Your task to perform on an android device: toggle priority inbox in the gmail app Image 0: 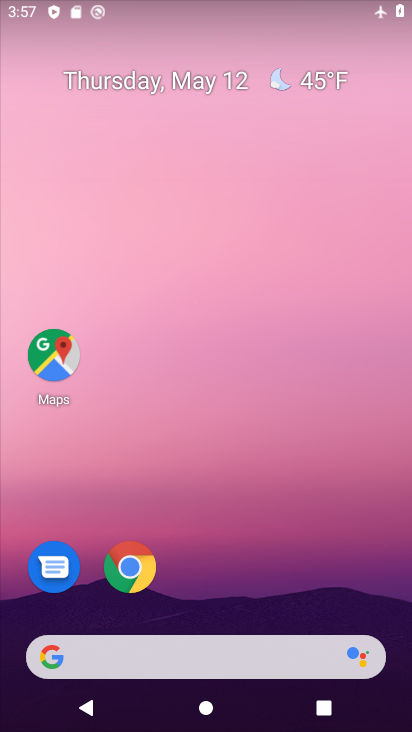
Step 0: drag from (206, 594) to (229, 197)
Your task to perform on an android device: toggle priority inbox in the gmail app Image 1: 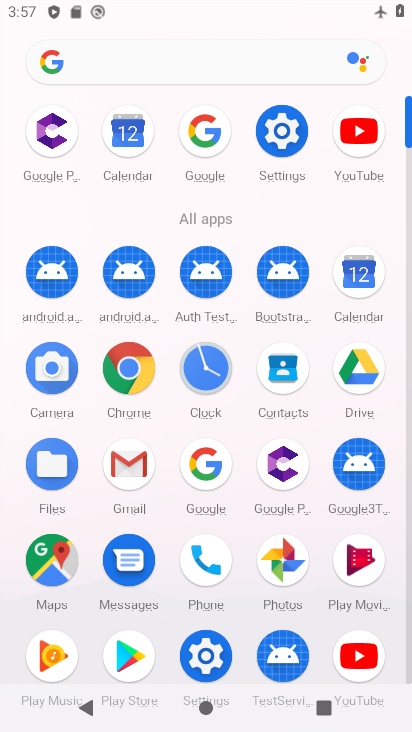
Step 1: click (121, 477)
Your task to perform on an android device: toggle priority inbox in the gmail app Image 2: 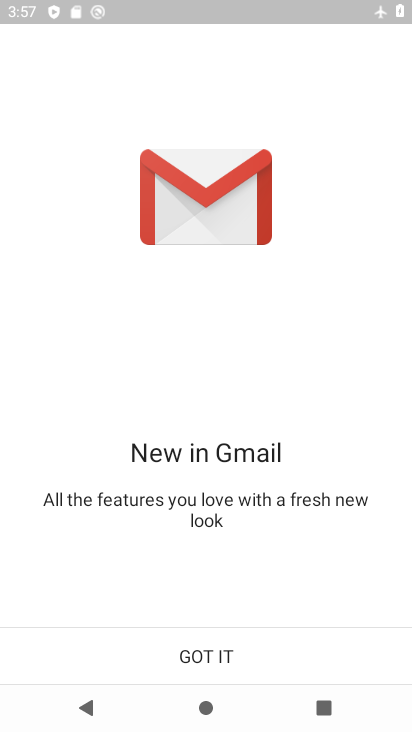
Step 2: click (261, 660)
Your task to perform on an android device: toggle priority inbox in the gmail app Image 3: 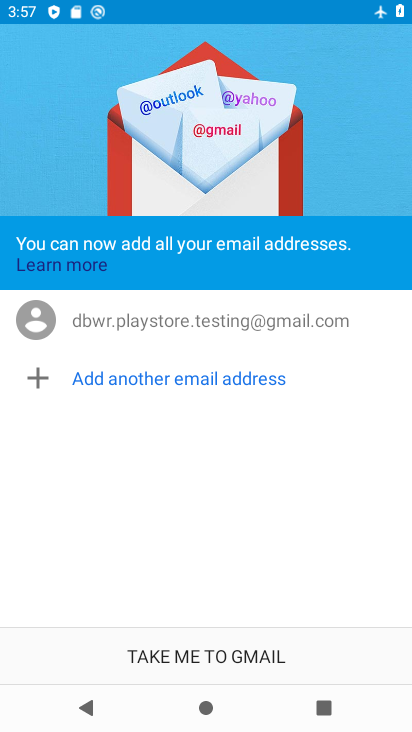
Step 3: click (261, 660)
Your task to perform on an android device: toggle priority inbox in the gmail app Image 4: 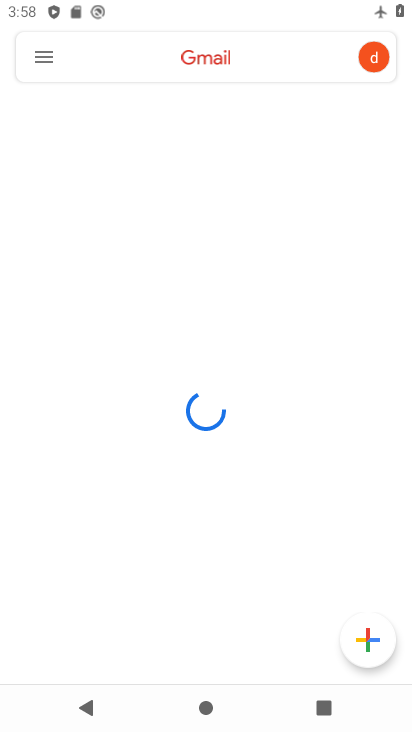
Step 4: click (45, 51)
Your task to perform on an android device: toggle priority inbox in the gmail app Image 5: 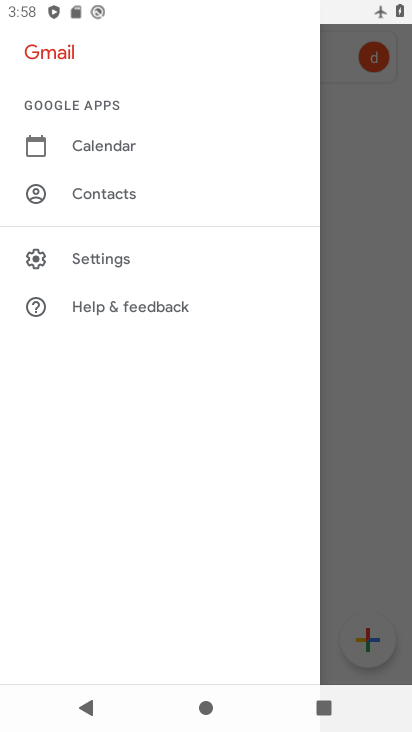
Step 5: click (101, 249)
Your task to perform on an android device: toggle priority inbox in the gmail app Image 6: 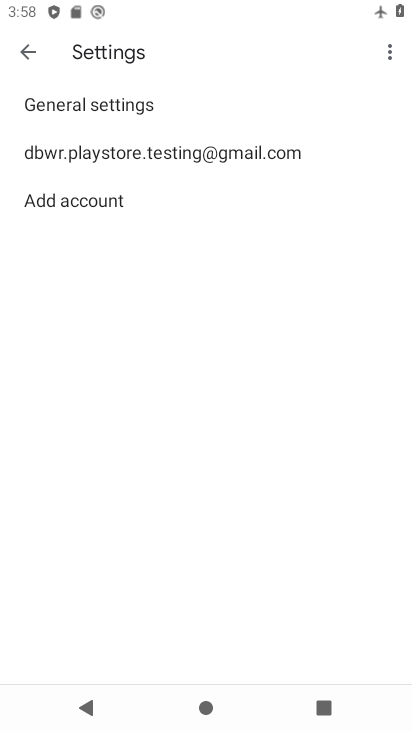
Step 6: click (155, 148)
Your task to perform on an android device: toggle priority inbox in the gmail app Image 7: 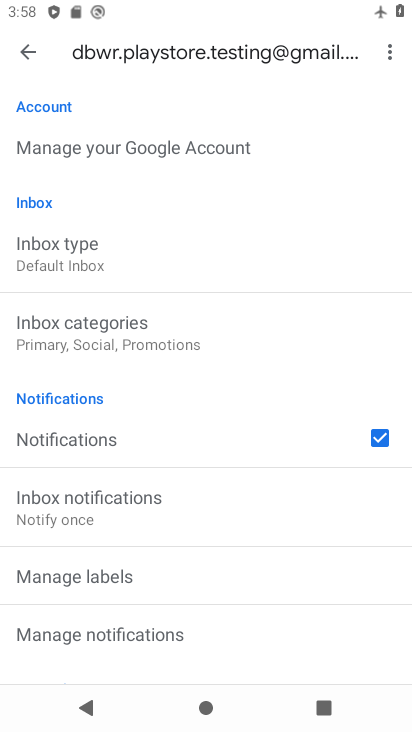
Step 7: click (74, 257)
Your task to perform on an android device: toggle priority inbox in the gmail app Image 8: 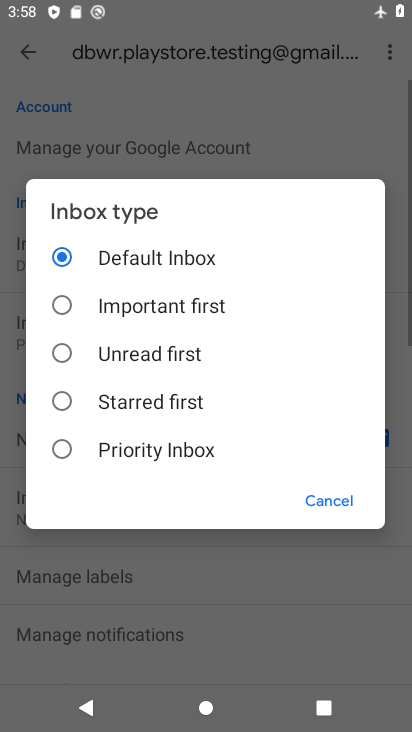
Step 8: click (86, 440)
Your task to perform on an android device: toggle priority inbox in the gmail app Image 9: 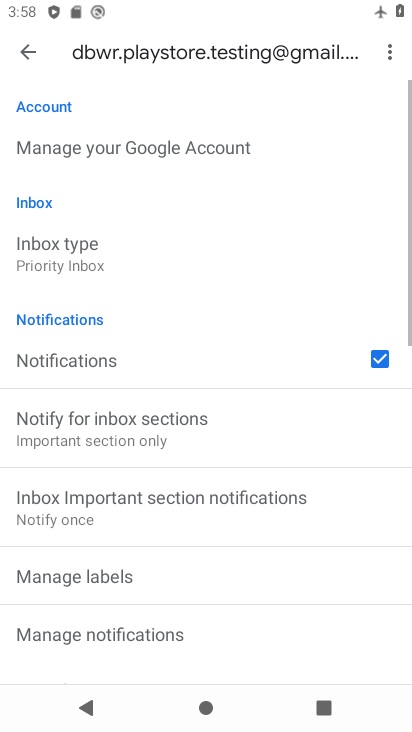
Step 9: task complete